Your task to perform on an android device: Search for seafood restaurants on Google Maps Image 0: 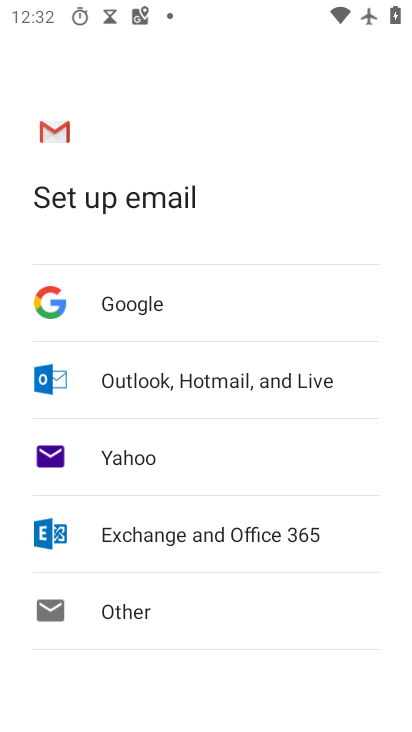
Step 0: press home button
Your task to perform on an android device: Search for seafood restaurants on Google Maps Image 1: 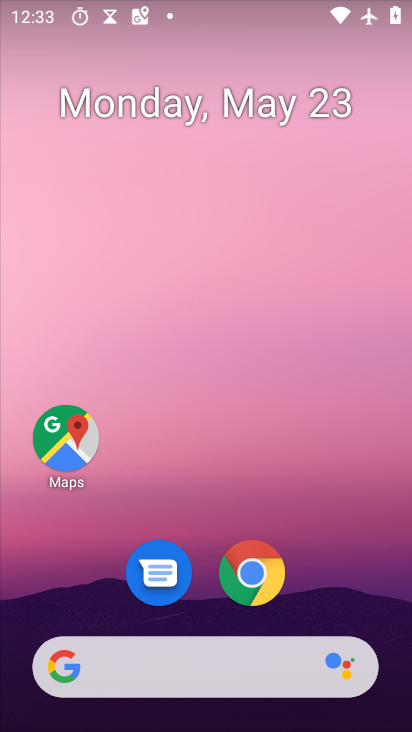
Step 1: click (60, 441)
Your task to perform on an android device: Search for seafood restaurants on Google Maps Image 2: 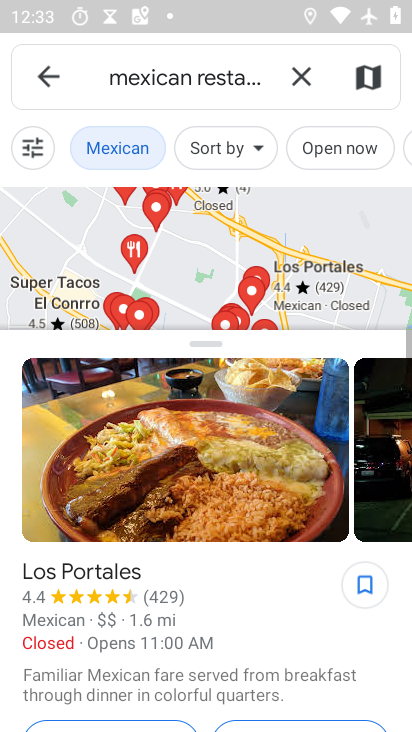
Step 2: click (305, 71)
Your task to perform on an android device: Search for seafood restaurants on Google Maps Image 3: 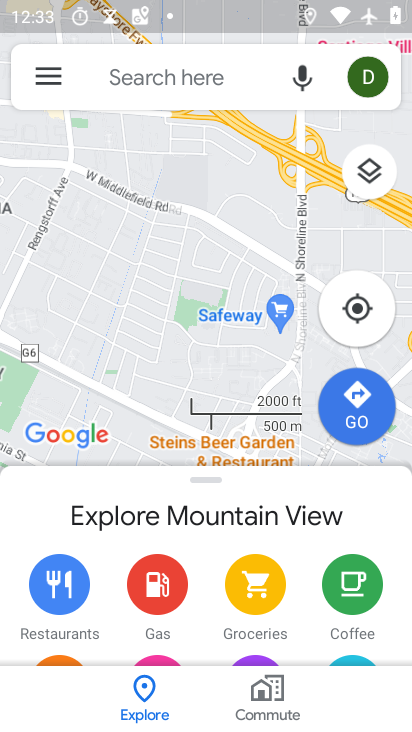
Step 3: click (177, 71)
Your task to perform on an android device: Search for seafood restaurants on Google Maps Image 4: 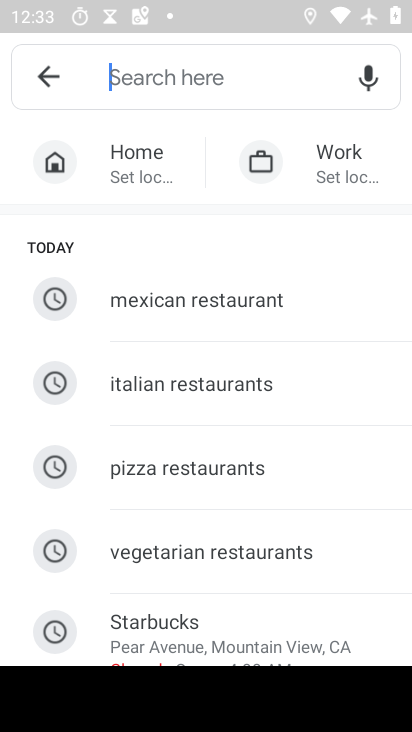
Step 4: drag from (293, 577) to (336, 206)
Your task to perform on an android device: Search for seafood restaurants on Google Maps Image 5: 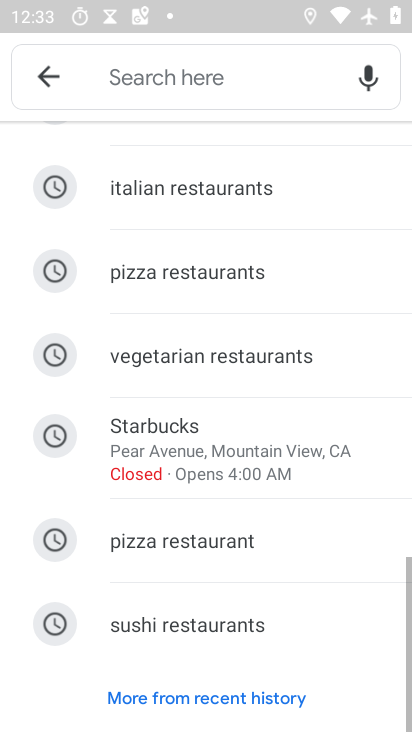
Step 5: drag from (337, 203) to (262, 618)
Your task to perform on an android device: Search for seafood restaurants on Google Maps Image 6: 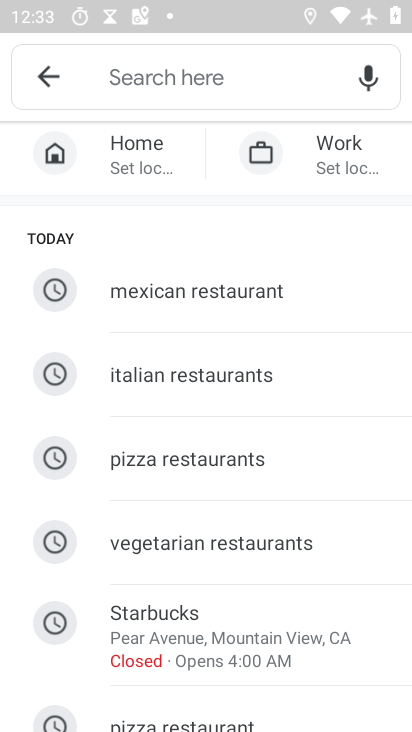
Step 6: click (169, 73)
Your task to perform on an android device: Search for seafood restaurants on Google Maps Image 7: 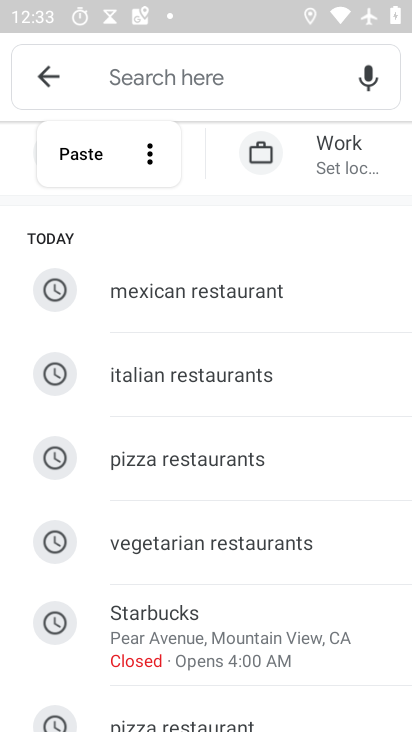
Step 7: type "seafood"
Your task to perform on an android device: Search for seafood restaurants on Google Maps Image 8: 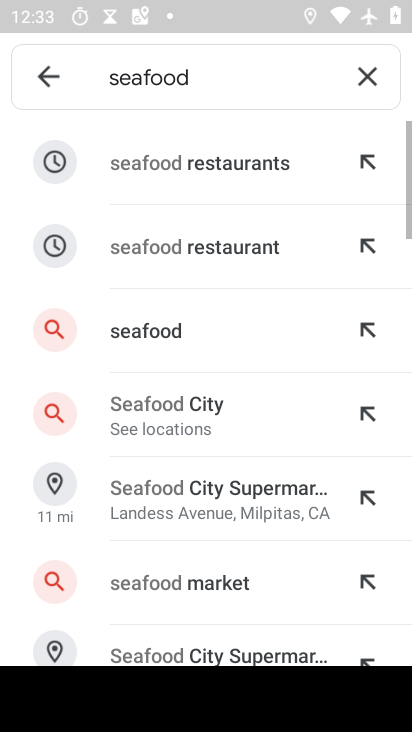
Step 8: click (228, 171)
Your task to perform on an android device: Search for seafood restaurants on Google Maps Image 9: 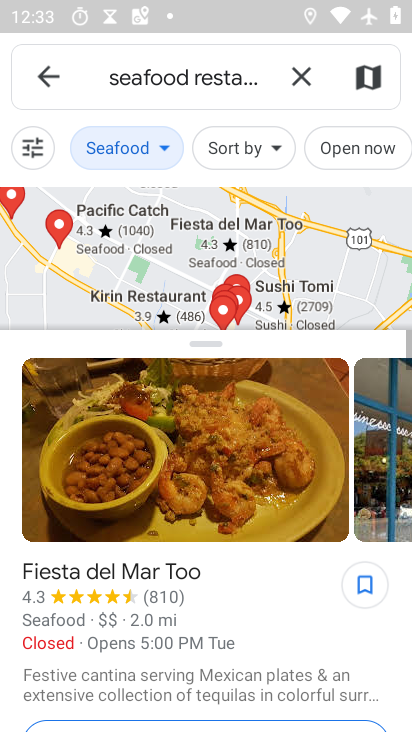
Step 9: task complete